Your task to perform on an android device: set an alarm Image 0: 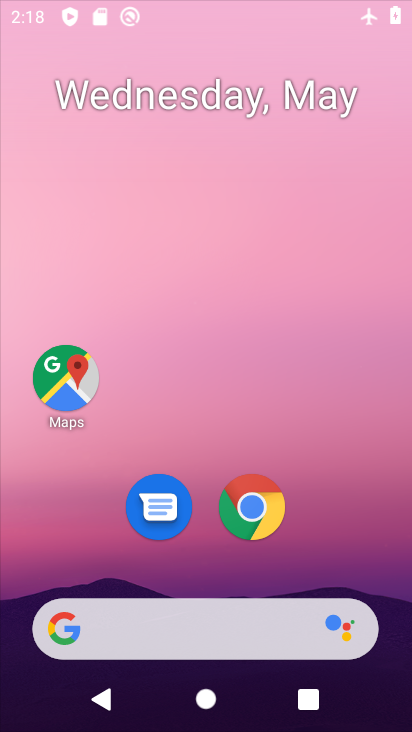
Step 0: drag from (362, 236) to (361, 154)
Your task to perform on an android device: set an alarm Image 1: 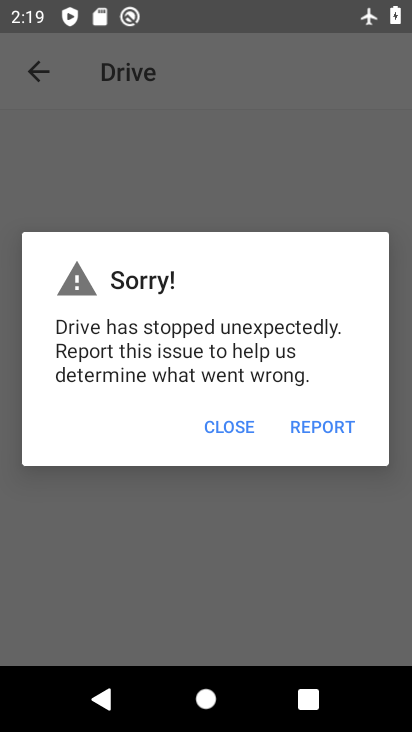
Step 1: press home button
Your task to perform on an android device: set an alarm Image 2: 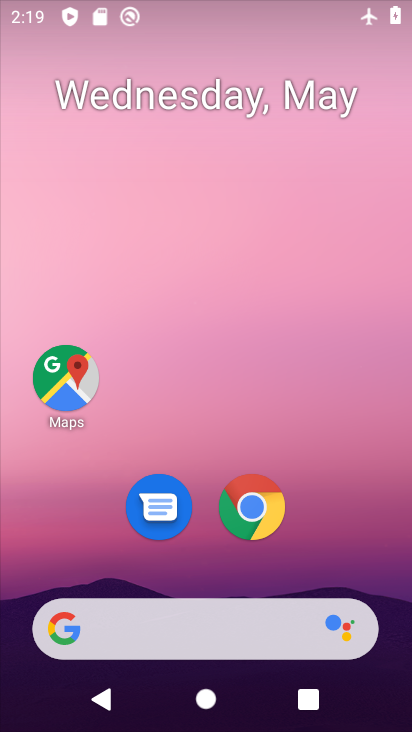
Step 2: drag from (377, 573) to (345, 200)
Your task to perform on an android device: set an alarm Image 3: 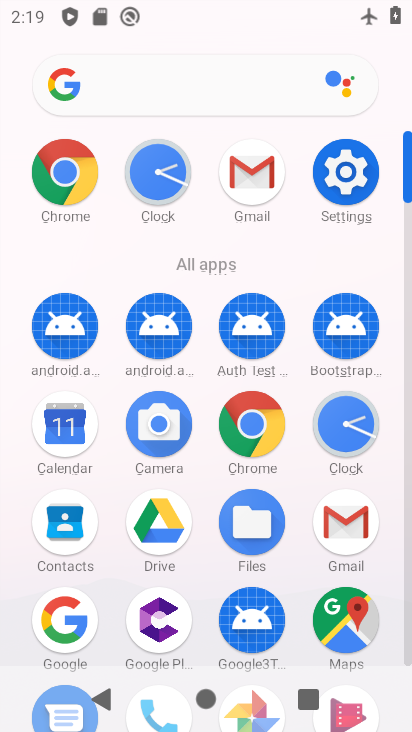
Step 3: click (333, 436)
Your task to perform on an android device: set an alarm Image 4: 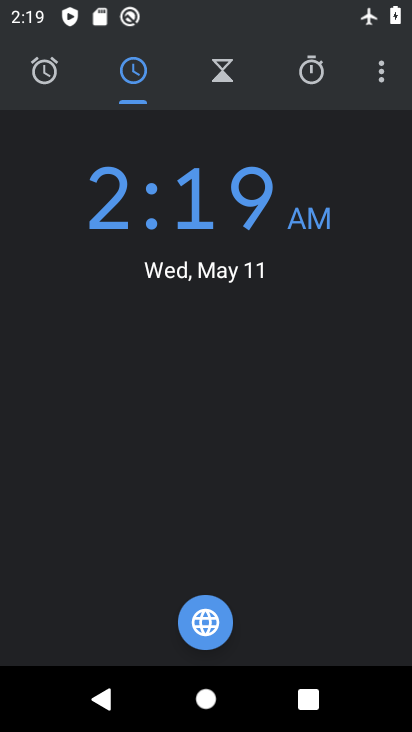
Step 4: click (22, 82)
Your task to perform on an android device: set an alarm Image 5: 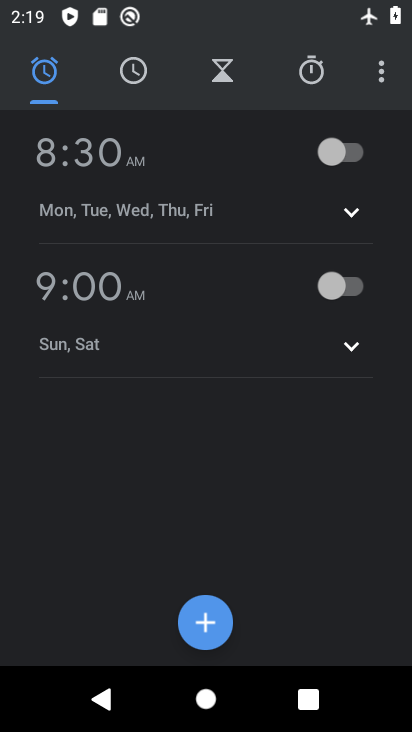
Step 5: click (214, 604)
Your task to perform on an android device: set an alarm Image 6: 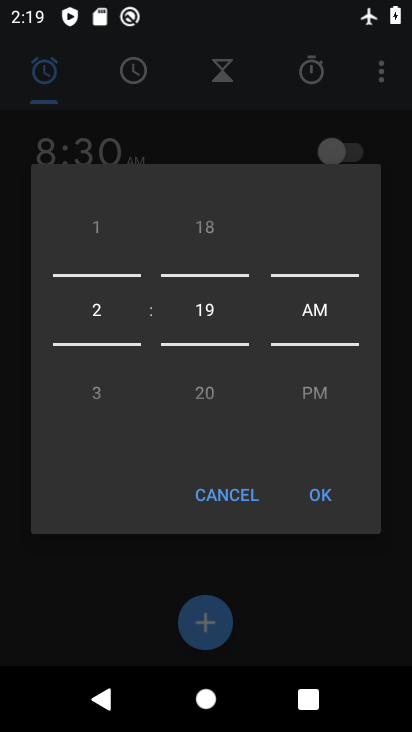
Step 6: click (312, 490)
Your task to perform on an android device: set an alarm Image 7: 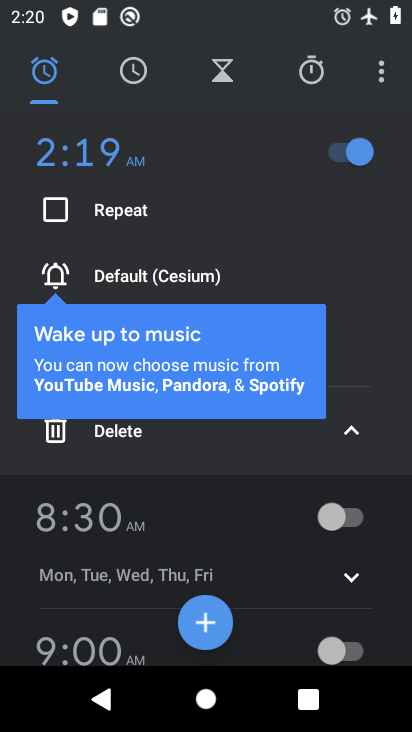
Step 7: task complete